Your task to perform on an android device: turn on the 12-hour format for clock Image 0: 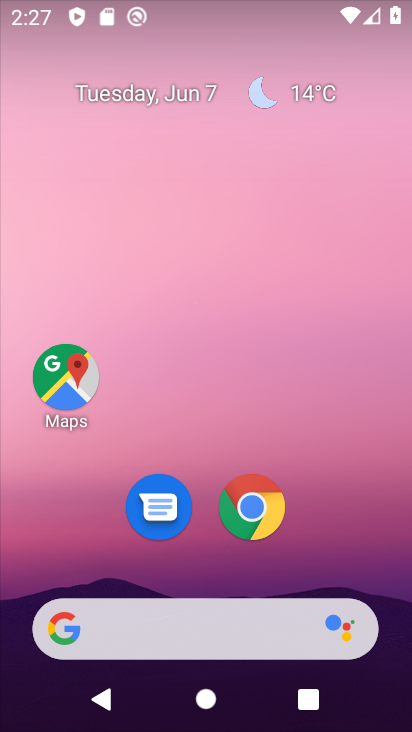
Step 0: drag from (365, 536) to (327, 11)
Your task to perform on an android device: turn on the 12-hour format for clock Image 1: 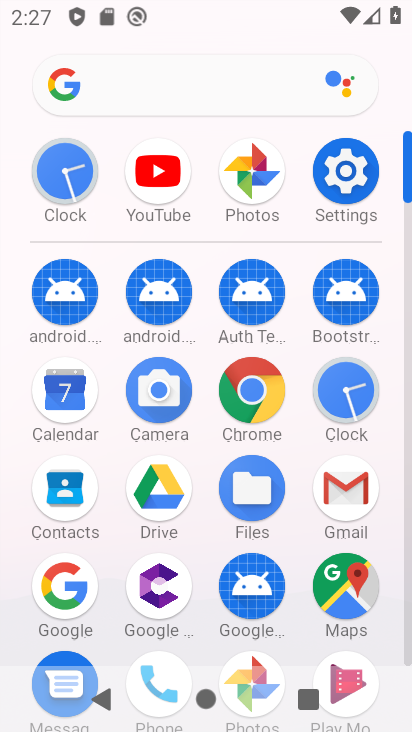
Step 1: click (62, 172)
Your task to perform on an android device: turn on the 12-hour format for clock Image 2: 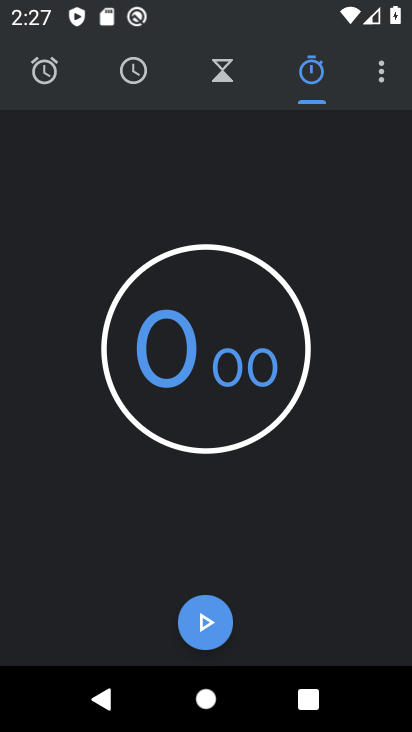
Step 2: click (385, 67)
Your task to perform on an android device: turn on the 12-hour format for clock Image 3: 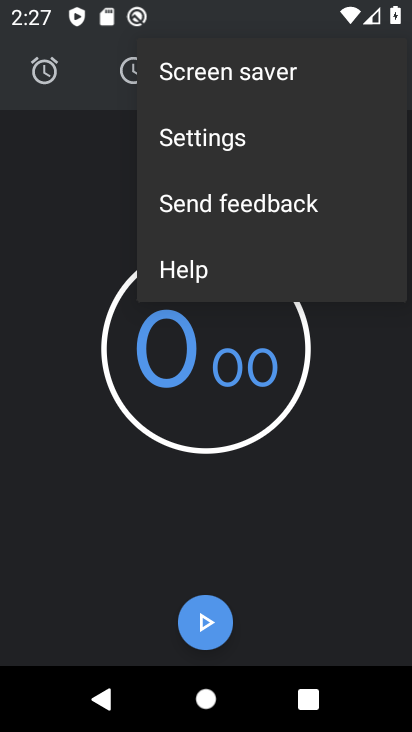
Step 3: click (249, 138)
Your task to perform on an android device: turn on the 12-hour format for clock Image 4: 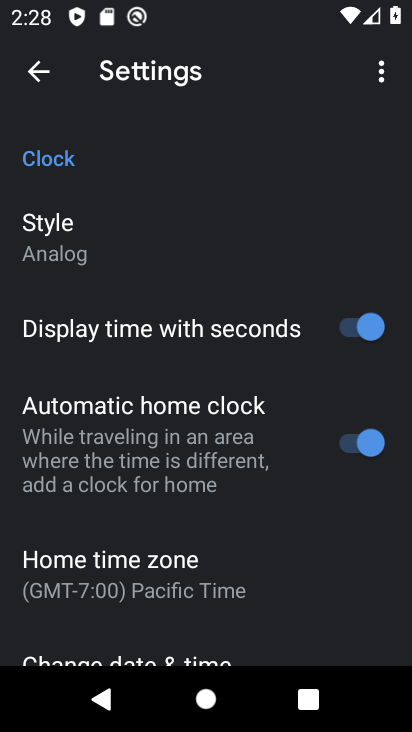
Step 4: drag from (172, 542) to (179, 158)
Your task to perform on an android device: turn on the 12-hour format for clock Image 5: 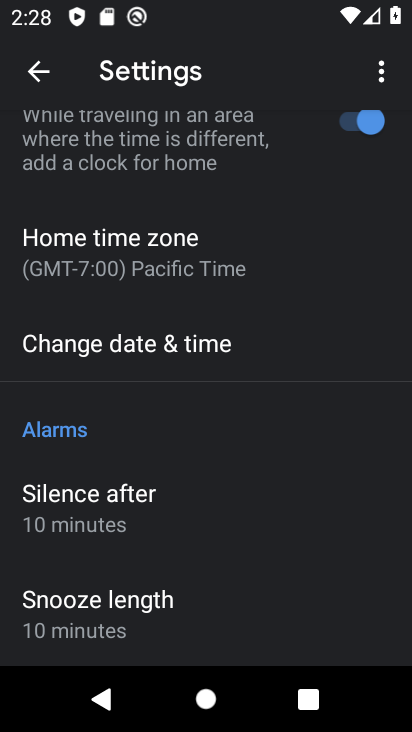
Step 5: click (149, 355)
Your task to perform on an android device: turn on the 12-hour format for clock Image 6: 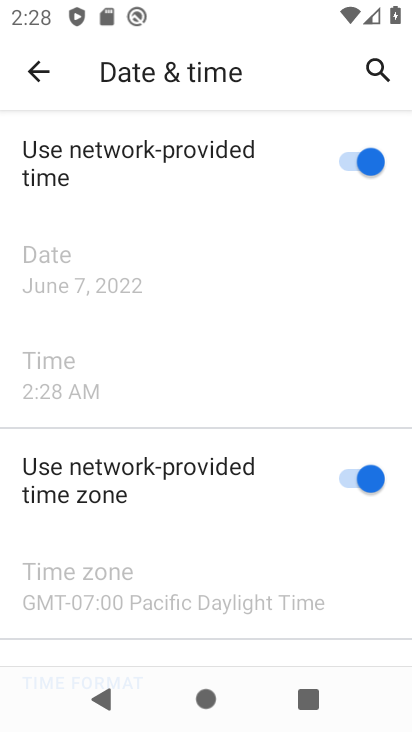
Step 6: task complete